Your task to perform on an android device: Open Amazon Image 0: 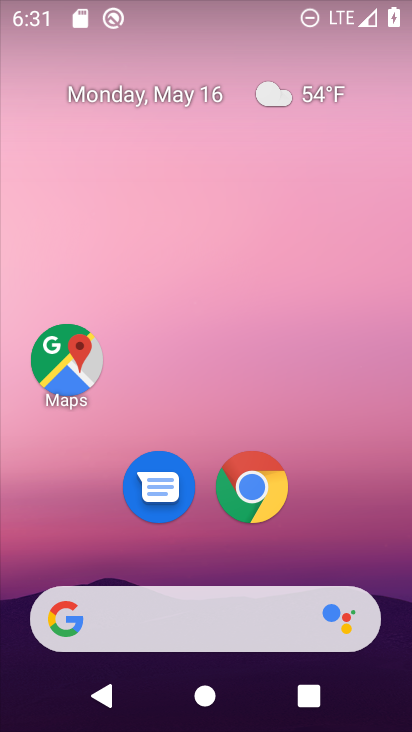
Step 0: click (245, 502)
Your task to perform on an android device: Open Amazon Image 1: 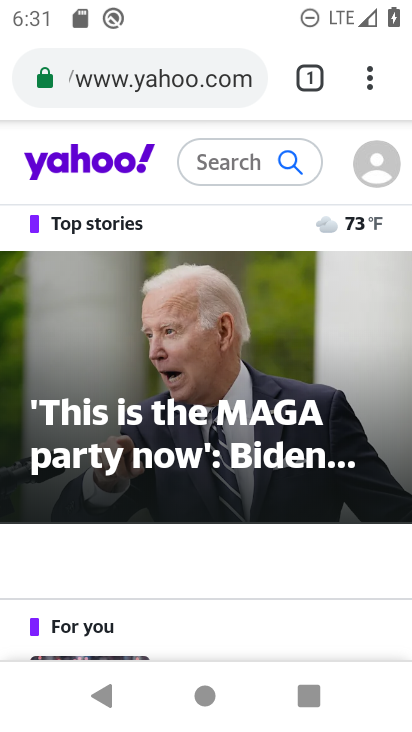
Step 1: click (308, 75)
Your task to perform on an android device: Open Amazon Image 2: 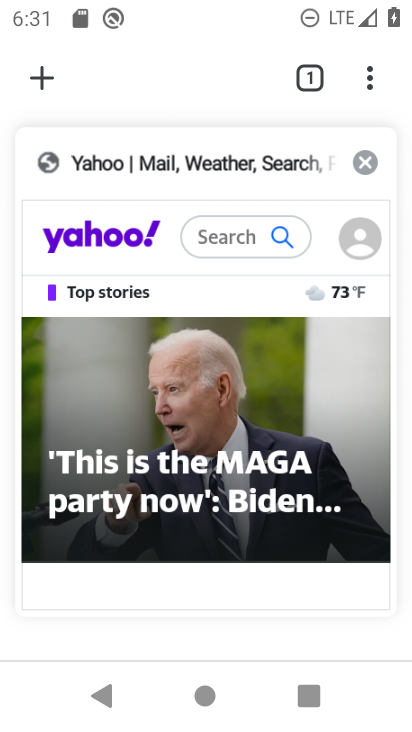
Step 2: click (368, 170)
Your task to perform on an android device: Open Amazon Image 3: 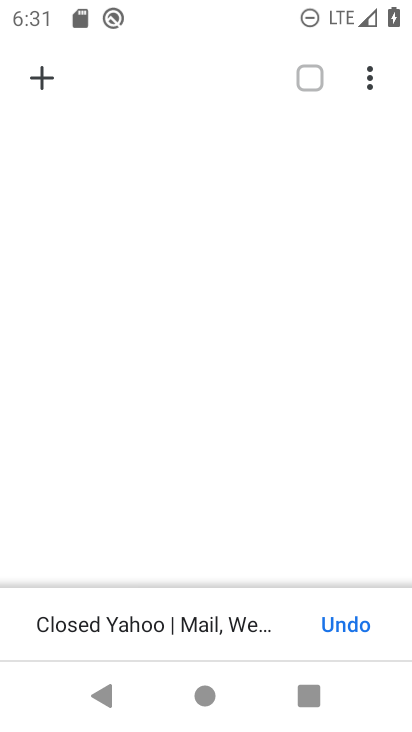
Step 3: click (31, 77)
Your task to perform on an android device: Open Amazon Image 4: 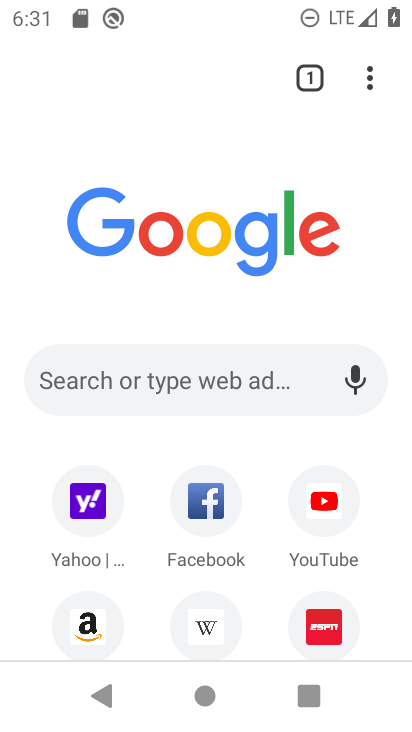
Step 4: drag from (127, 622) to (144, 250)
Your task to perform on an android device: Open Amazon Image 5: 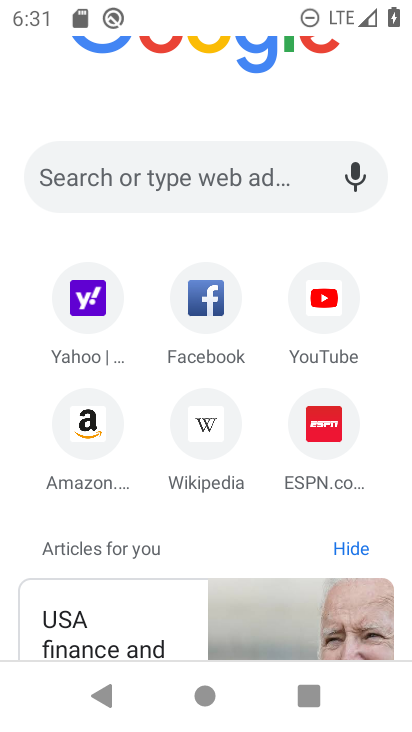
Step 5: click (85, 430)
Your task to perform on an android device: Open Amazon Image 6: 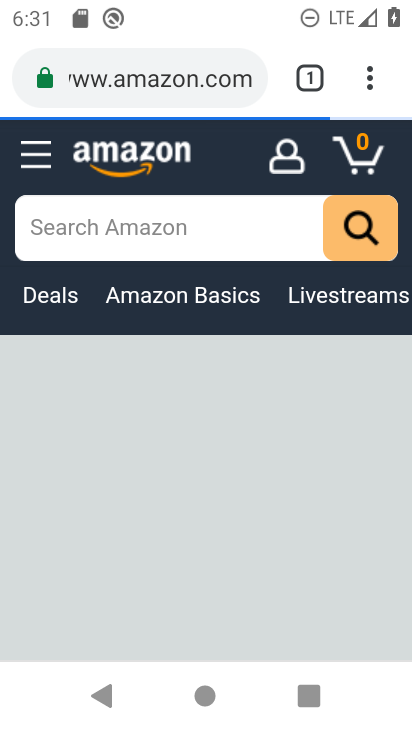
Step 6: task complete